Your task to perform on an android device: Open the calendar app, open the side menu, and click the "Day" option Image 0: 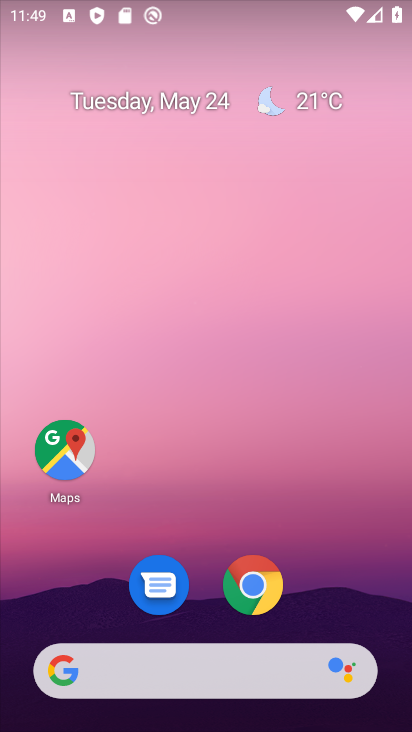
Step 0: drag from (276, 510) to (302, 86)
Your task to perform on an android device: Open the calendar app, open the side menu, and click the "Day" option Image 1: 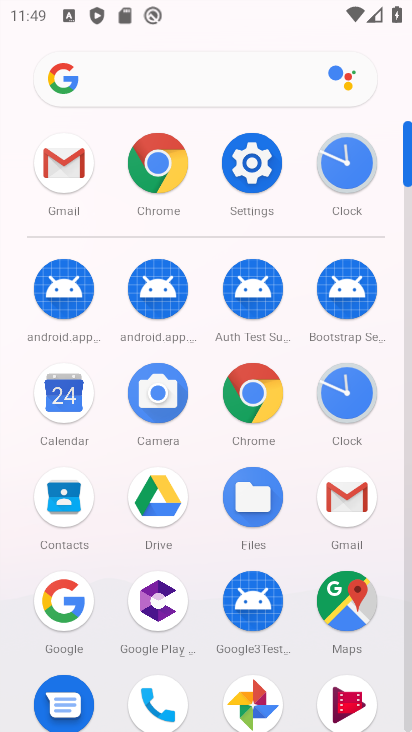
Step 1: click (53, 395)
Your task to perform on an android device: Open the calendar app, open the side menu, and click the "Day" option Image 2: 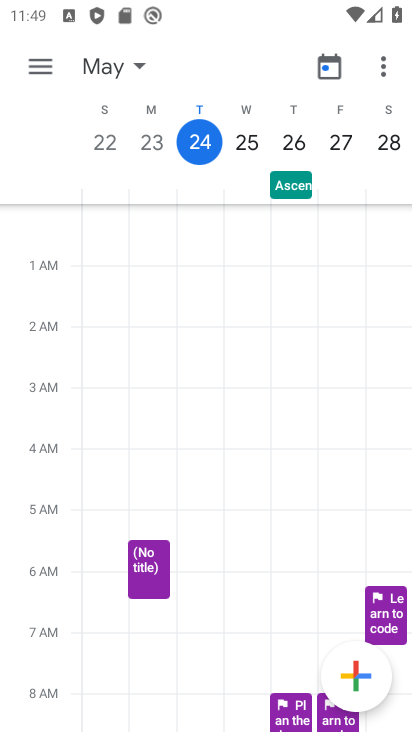
Step 2: click (46, 66)
Your task to perform on an android device: Open the calendar app, open the side menu, and click the "Day" option Image 3: 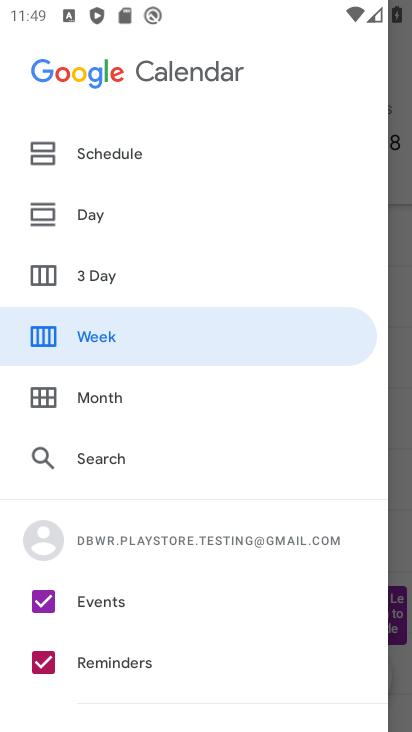
Step 3: click (39, 207)
Your task to perform on an android device: Open the calendar app, open the side menu, and click the "Day" option Image 4: 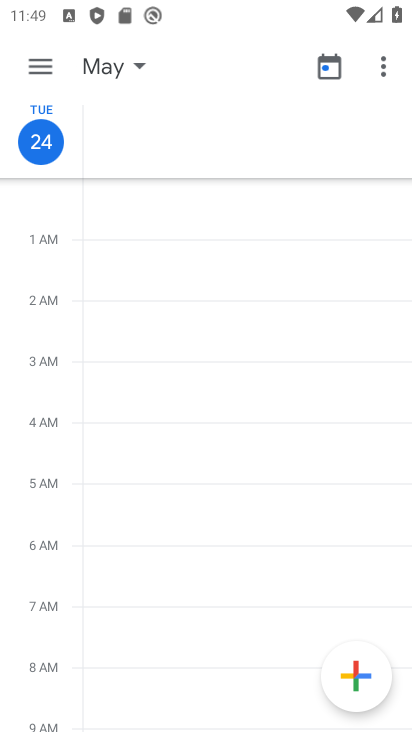
Step 4: task complete